Your task to perform on an android device: change your default location settings in chrome Image 0: 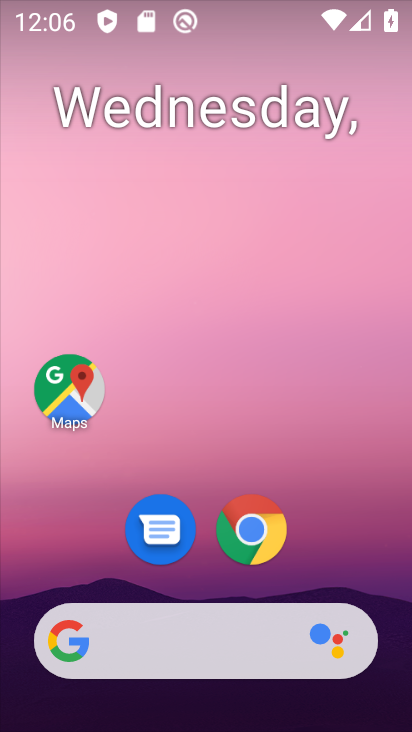
Step 0: click (258, 528)
Your task to perform on an android device: change your default location settings in chrome Image 1: 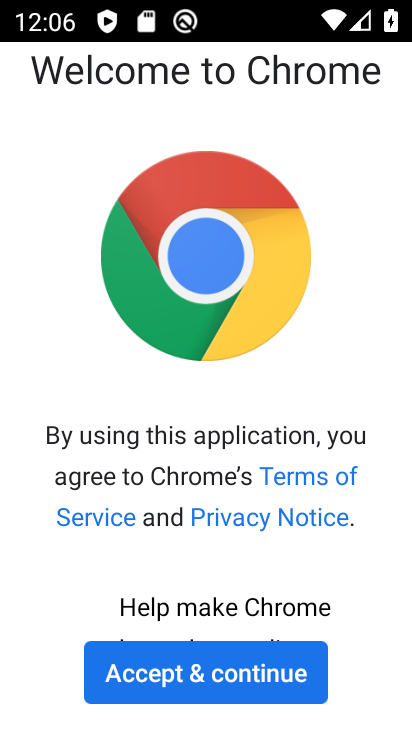
Step 1: click (197, 671)
Your task to perform on an android device: change your default location settings in chrome Image 2: 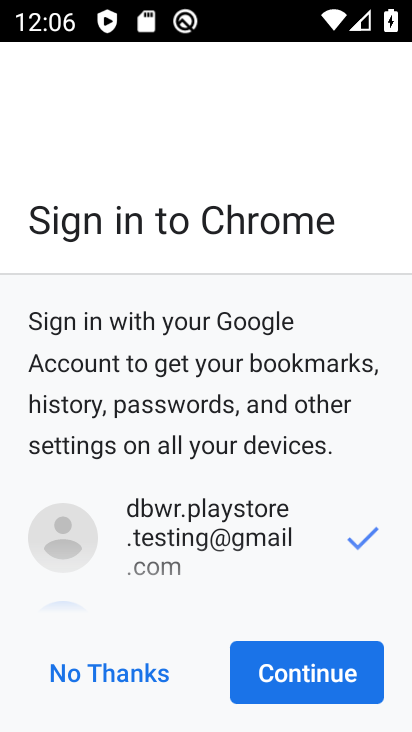
Step 2: click (298, 665)
Your task to perform on an android device: change your default location settings in chrome Image 3: 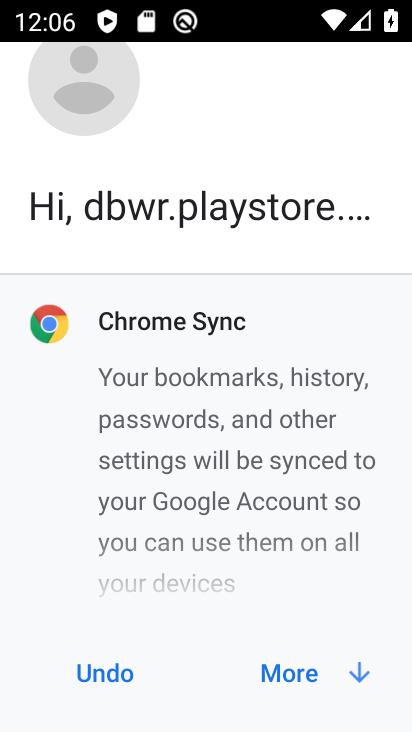
Step 3: click (294, 671)
Your task to perform on an android device: change your default location settings in chrome Image 4: 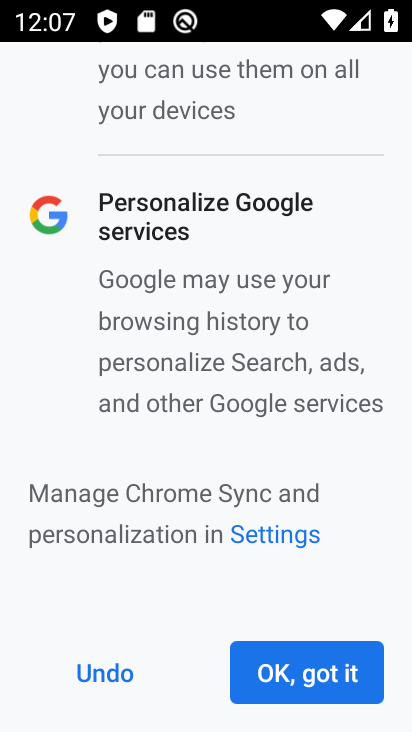
Step 4: click (294, 671)
Your task to perform on an android device: change your default location settings in chrome Image 5: 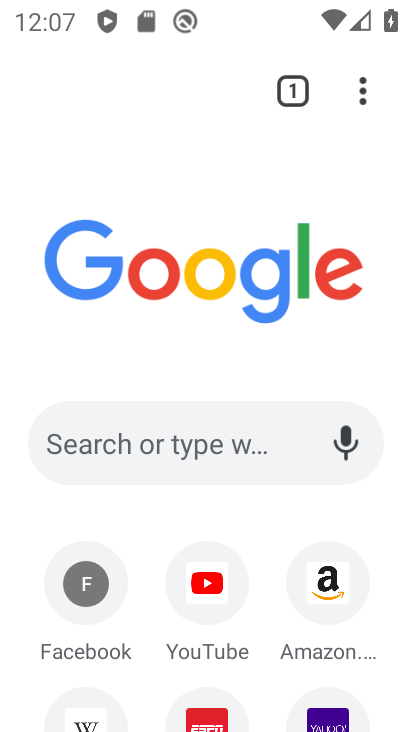
Step 5: click (364, 102)
Your task to perform on an android device: change your default location settings in chrome Image 6: 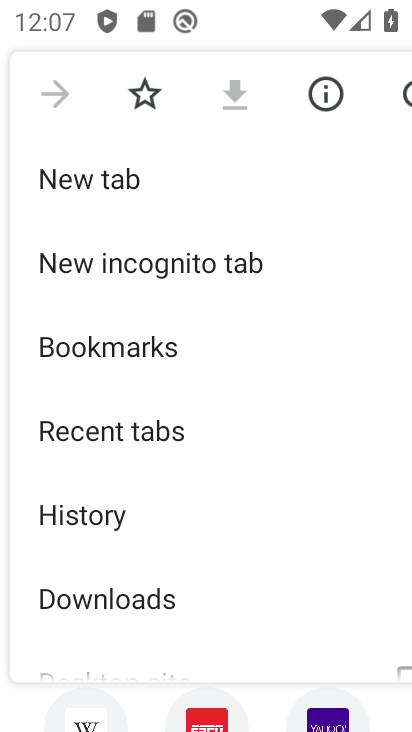
Step 6: drag from (271, 628) to (255, 93)
Your task to perform on an android device: change your default location settings in chrome Image 7: 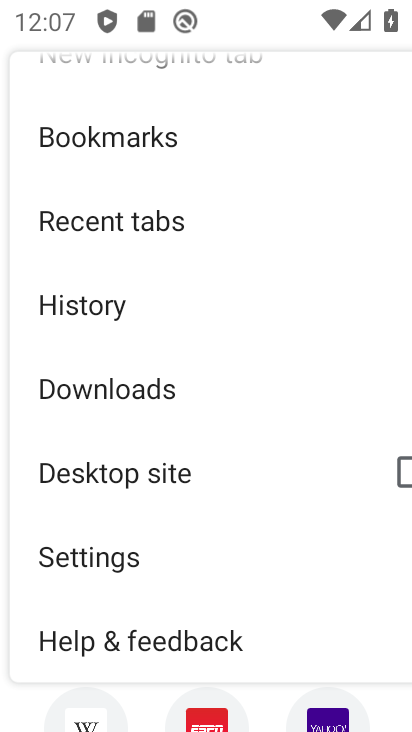
Step 7: click (111, 572)
Your task to perform on an android device: change your default location settings in chrome Image 8: 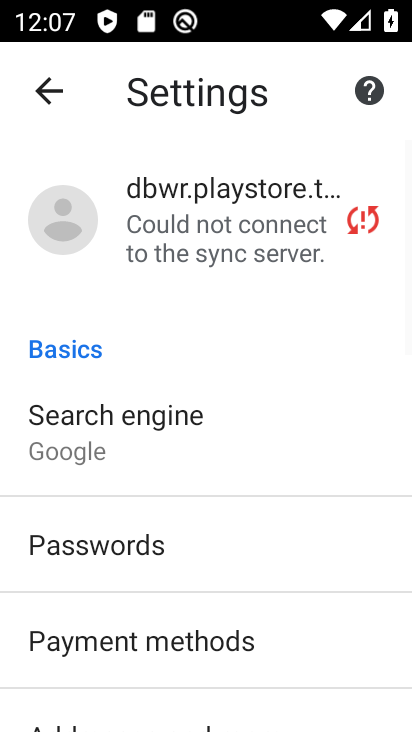
Step 8: drag from (272, 627) to (238, 229)
Your task to perform on an android device: change your default location settings in chrome Image 9: 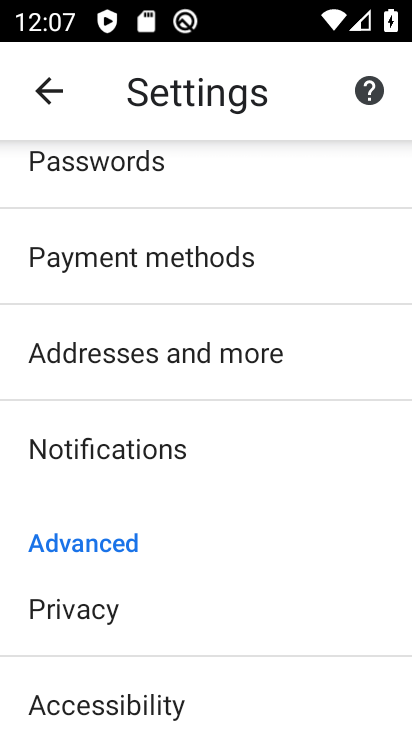
Step 9: drag from (170, 668) to (229, 137)
Your task to perform on an android device: change your default location settings in chrome Image 10: 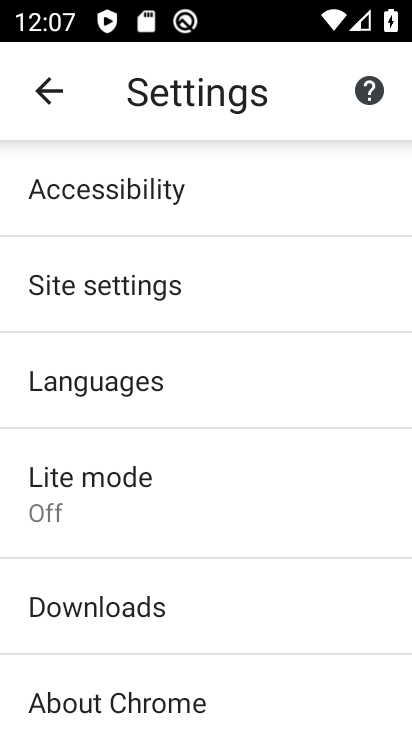
Step 10: click (106, 279)
Your task to perform on an android device: change your default location settings in chrome Image 11: 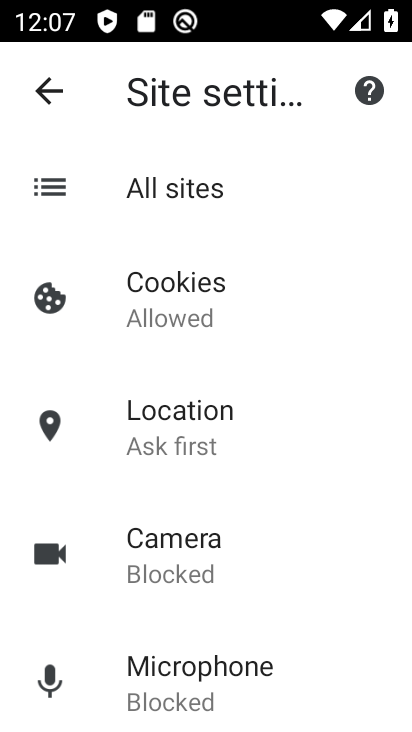
Step 11: click (186, 418)
Your task to perform on an android device: change your default location settings in chrome Image 12: 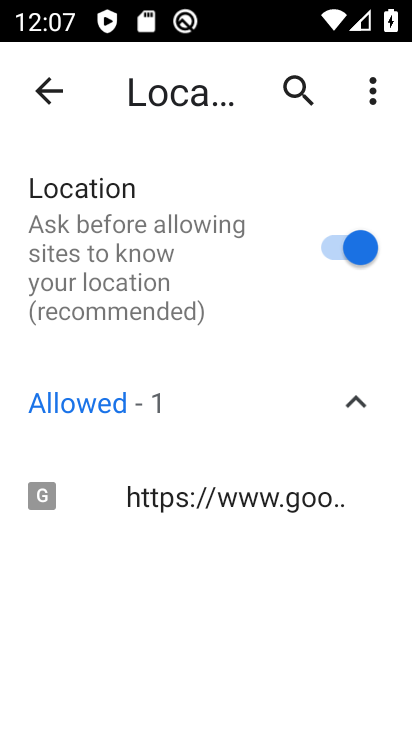
Step 12: click (325, 239)
Your task to perform on an android device: change your default location settings in chrome Image 13: 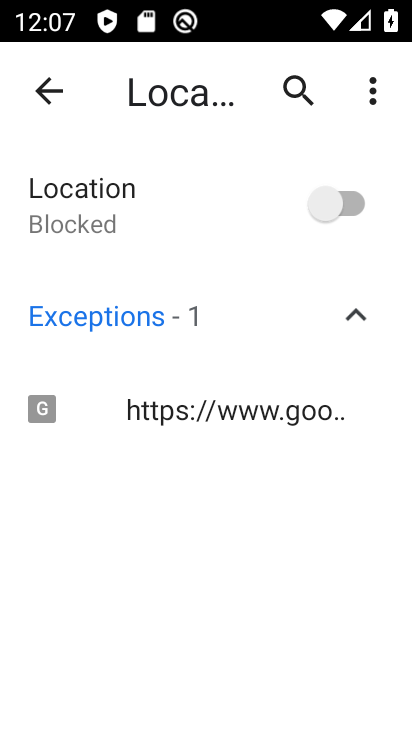
Step 13: task complete